Your task to perform on an android device: Open calendar and show me the second week of next month Image 0: 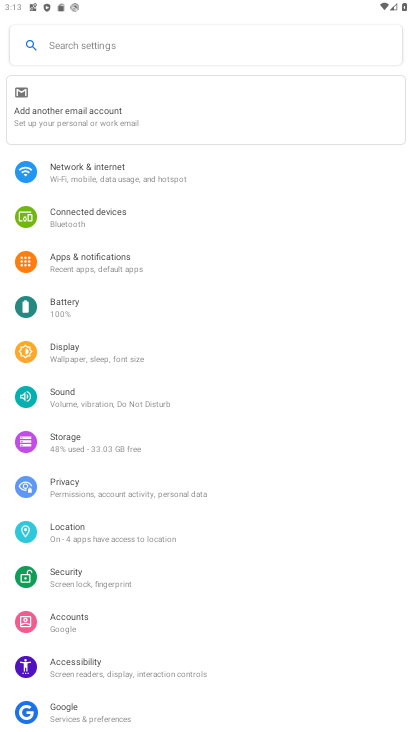
Step 0: press home button
Your task to perform on an android device: Open calendar and show me the second week of next month Image 1: 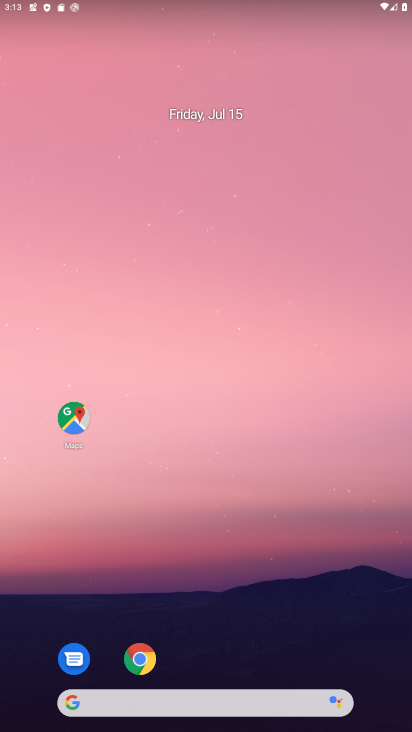
Step 1: drag from (136, 492) to (375, 9)
Your task to perform on an android device: Open calendar and show me the second week of next month Image 2: 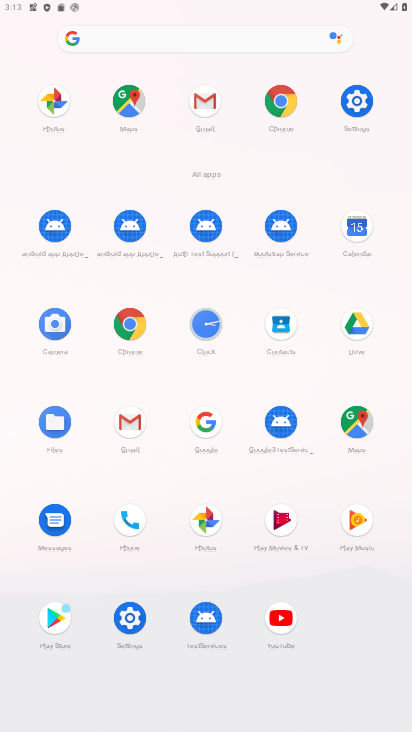
Step 2: click (352, 232)
Your task to perform on an android device: Open calendar and show me the second week of next month Image 3: 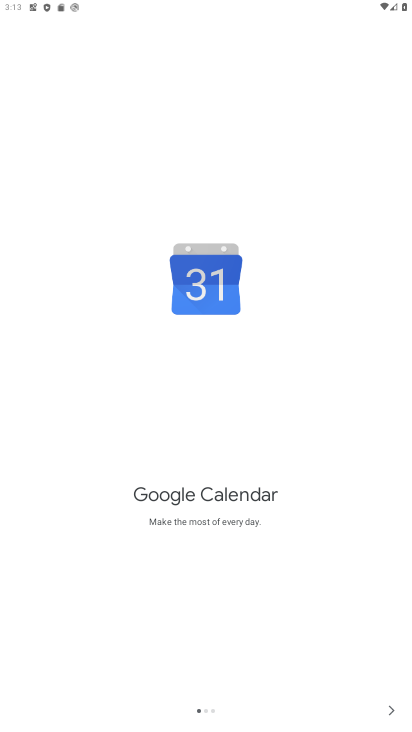
Step 3: click (398, 710)
Your task to perform on an android device: Open calendar and show me the second week of next month Image 4: 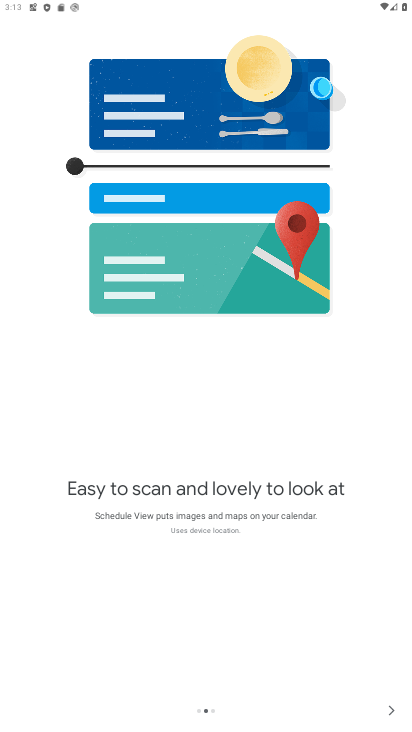
Step 4: click (388, 713)
Your task to perform on an android device: Open calendar and show me the second week of next month Image 5: 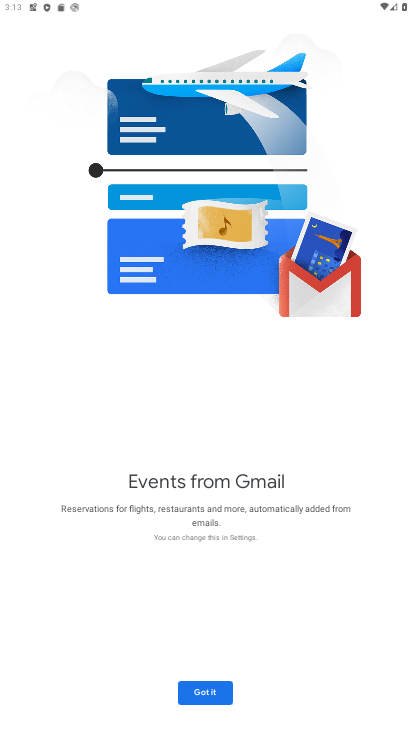
Step 5: click (387, 713)
Your task to perform on an android device: Open calendar and show me the second week of next month Image 6: 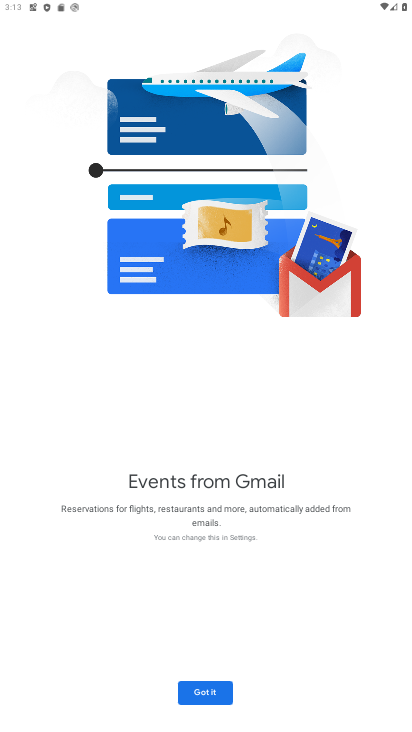
Step 6: click (200, 685)
Your task to perform on an android device: Open calendar and show me the second week of next month Image 7: 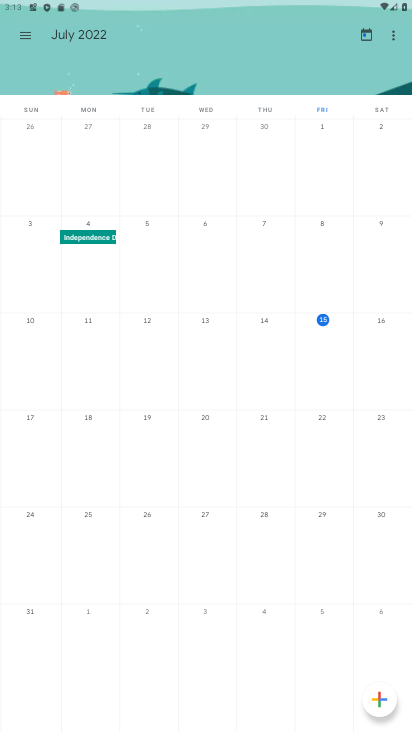
Step 7: drag from (314, 239) to (106, 218)
Your task to perform on an android device: Open calendar and show me the second week of next month Image 8: 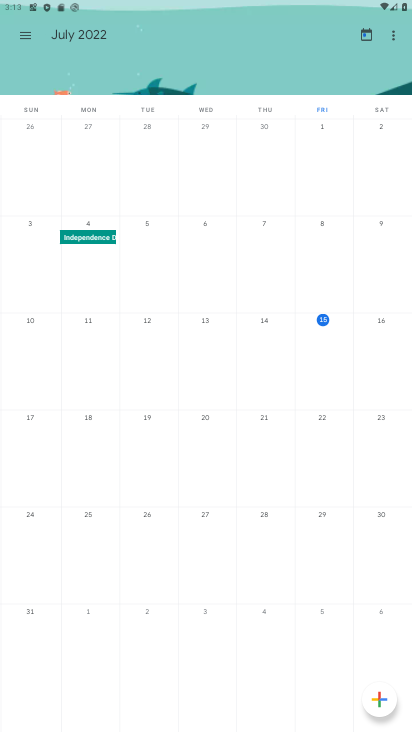
Step 8: drag from (397, 373) to (12, 482)
Your task to perform on an android device: Open calendar and show me the second week of next month Image 9: 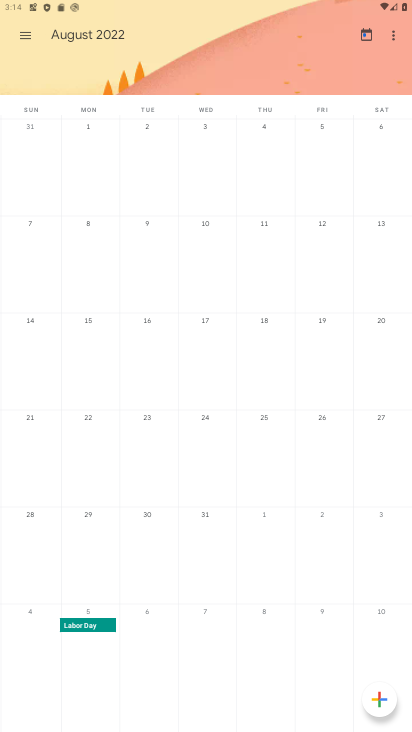
Step 9: click (92, 222)
Your task to perform on an android device: Open calendar and show me the second week of next month Image 10: 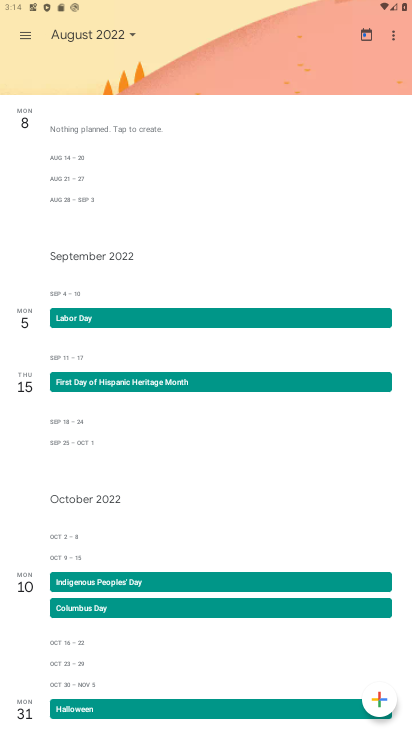
Step 10: task complete